Your task to perform on an android device: Show the shopping cart on newegg. Add "razer kraken" to the cart on newegg Image 0: 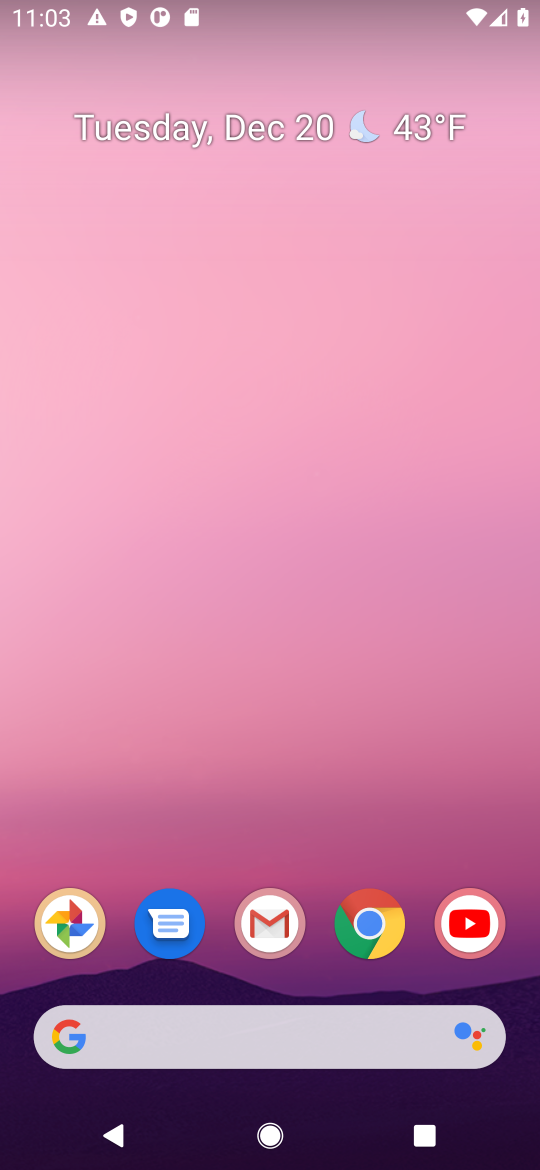
Step 0: click (351, 918)
Your task to perform on an android device: Show the shopping cart on newegg. Add "razer kraken" to the cart on newegg Image 1: 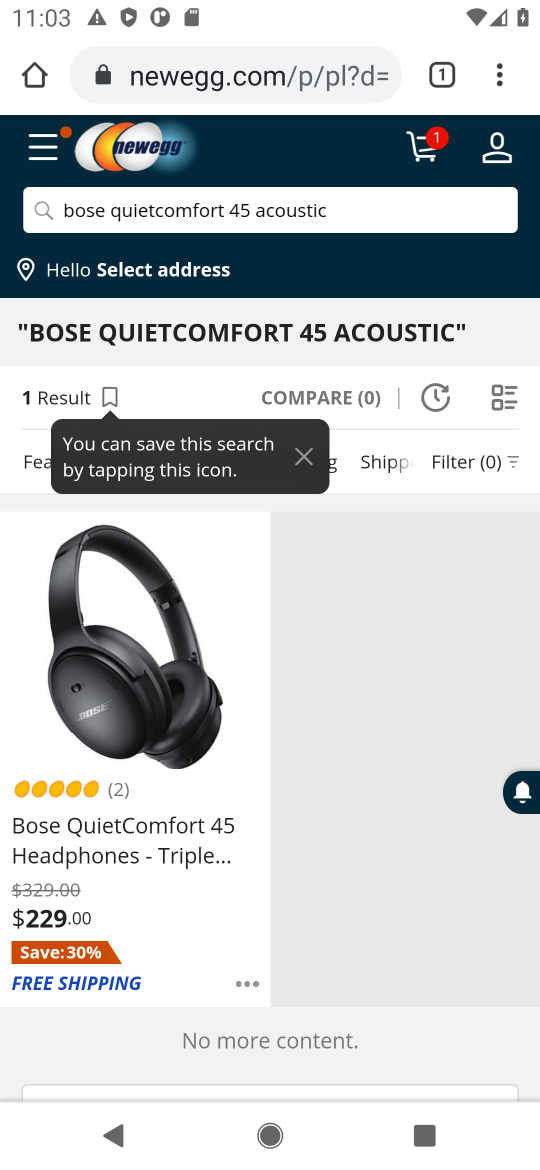
Step 1: task complete